Your task to perform on an android device: Open calendar and show me the first week of next month Image 0: 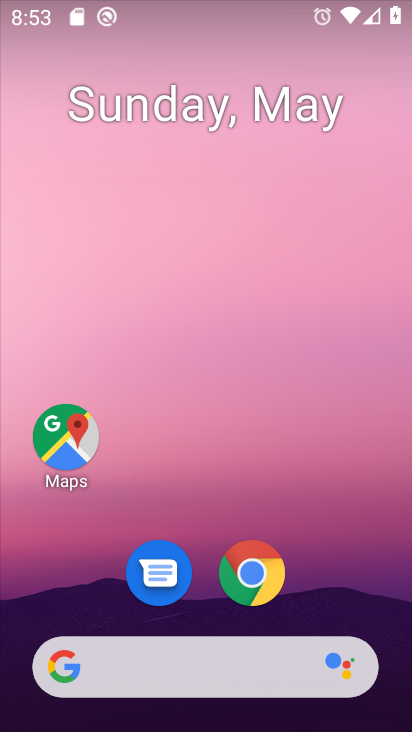
Step 0: drag from (270, 443) to (225, 10)
Your task to perform on an android device: Open calendar and show me the first week of next month Image 1: 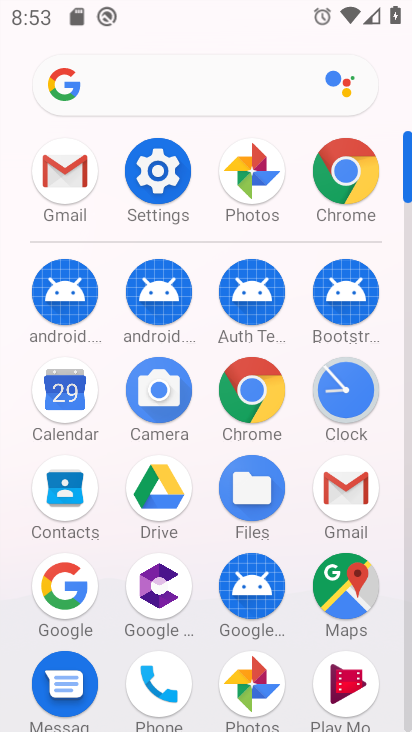
Step 1: click (61, 384)
Your task to perform on an android device: Open calendar and show me the first week of next month Image 2: 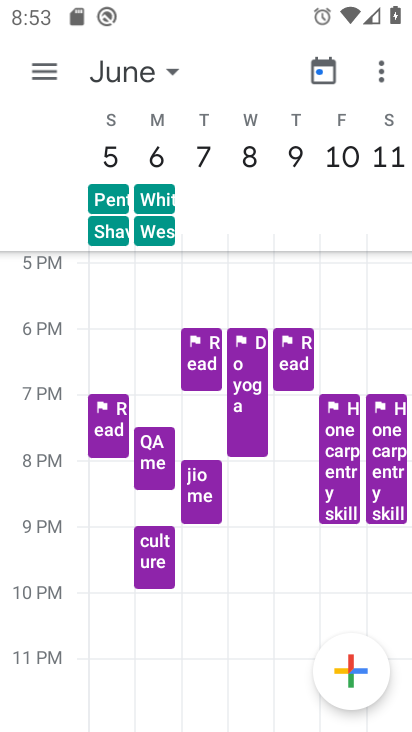
Step 2: task complete